Your task to perform on an android device: install app "Messenger Lite" Image 0: 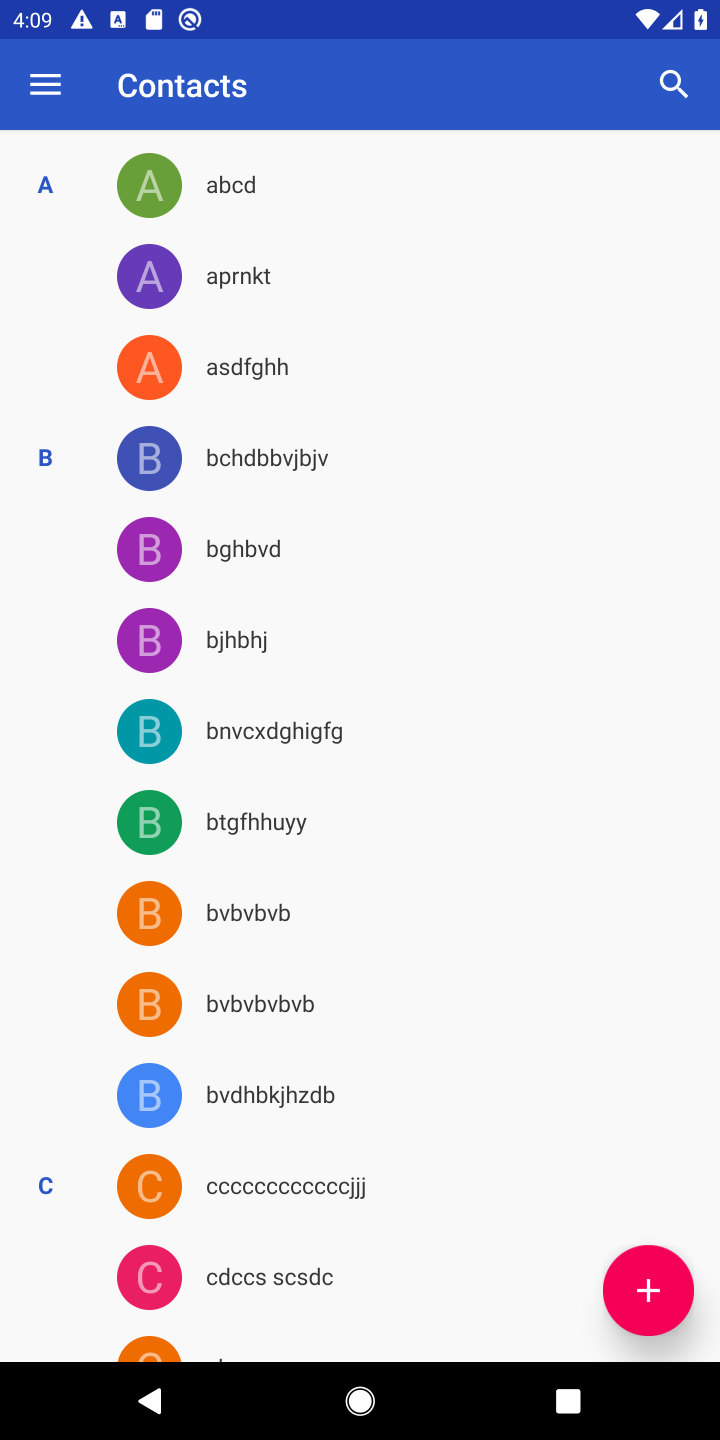
Step 0: press home button
Your task to perform on an android device: install app "Messenger Lite" Image 1: 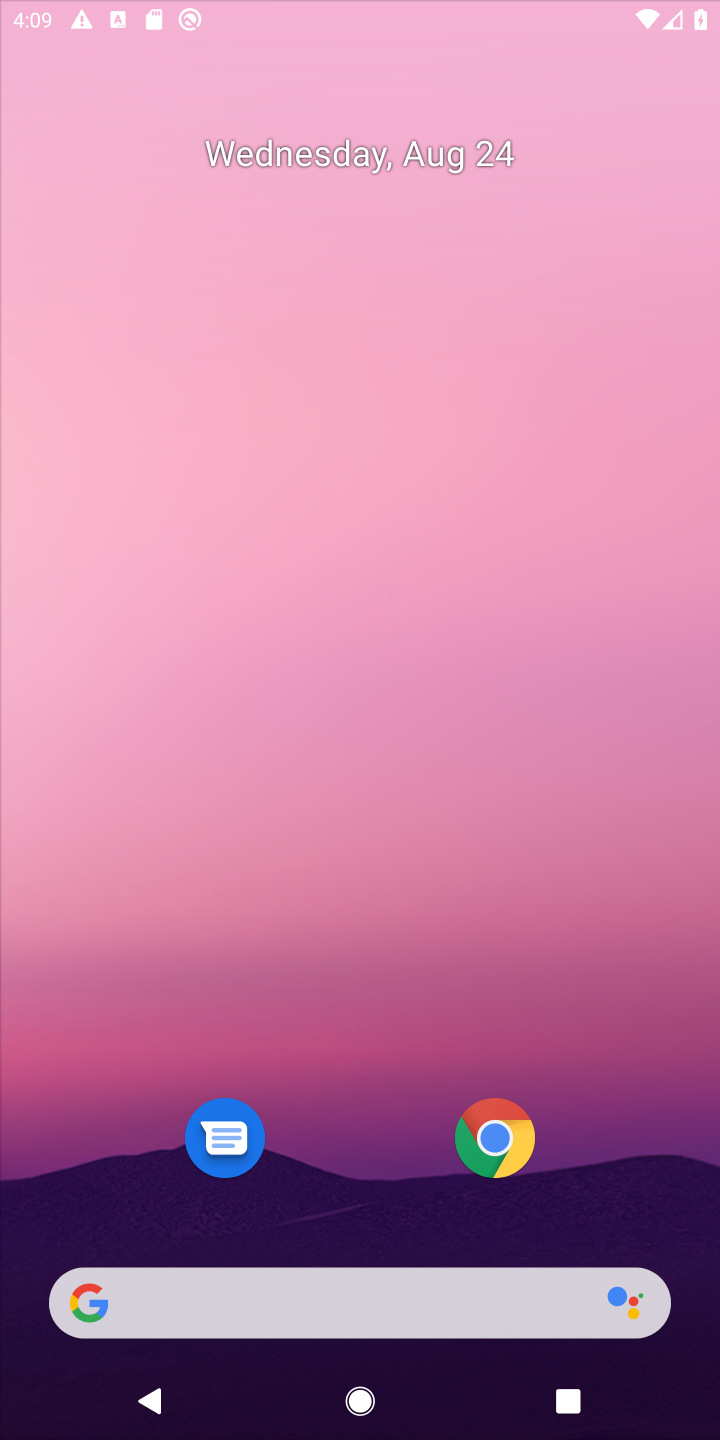
Step 1: press home button
Your task to perform on an android device: install app "Messenger Lite" Image 2: 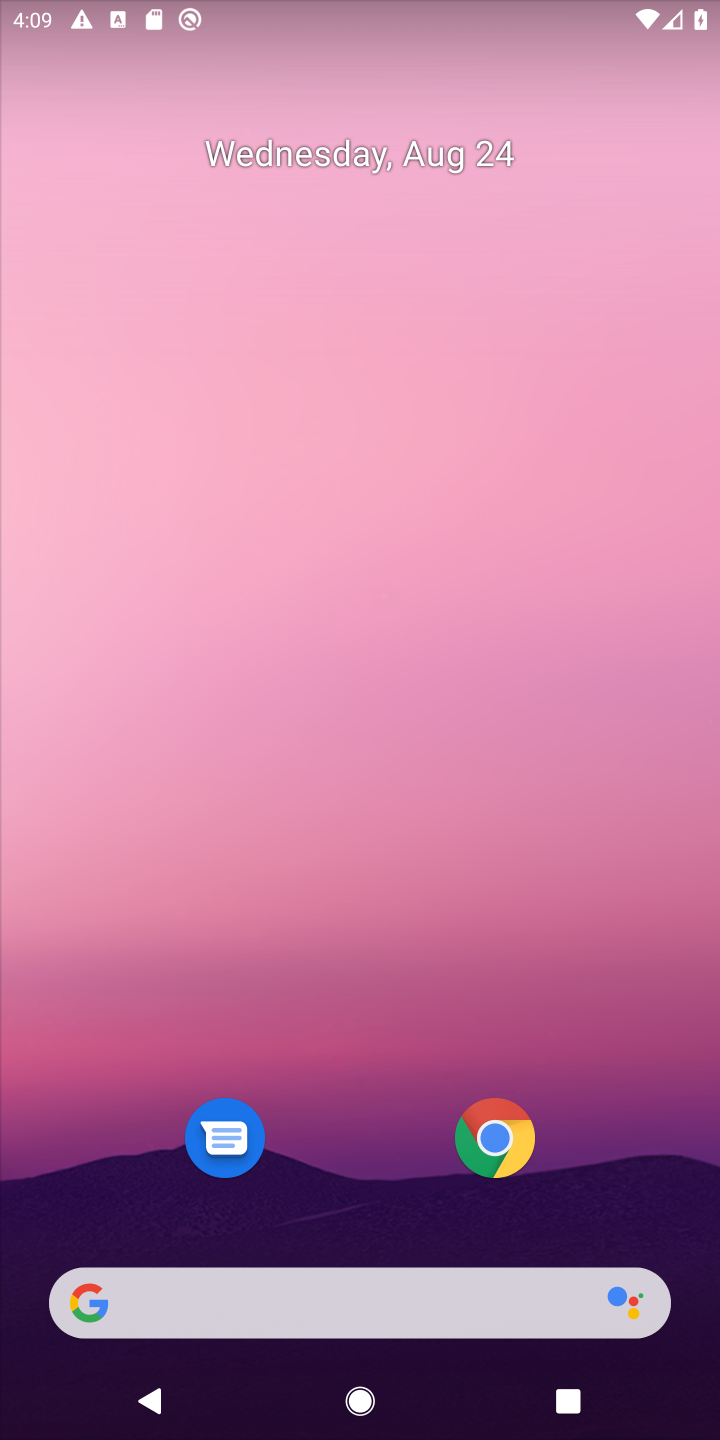
Step 2: drag from (350, 1234) to (358, 101)
Your task to perform on an android device: install app "Messenger Lite" Image 3: 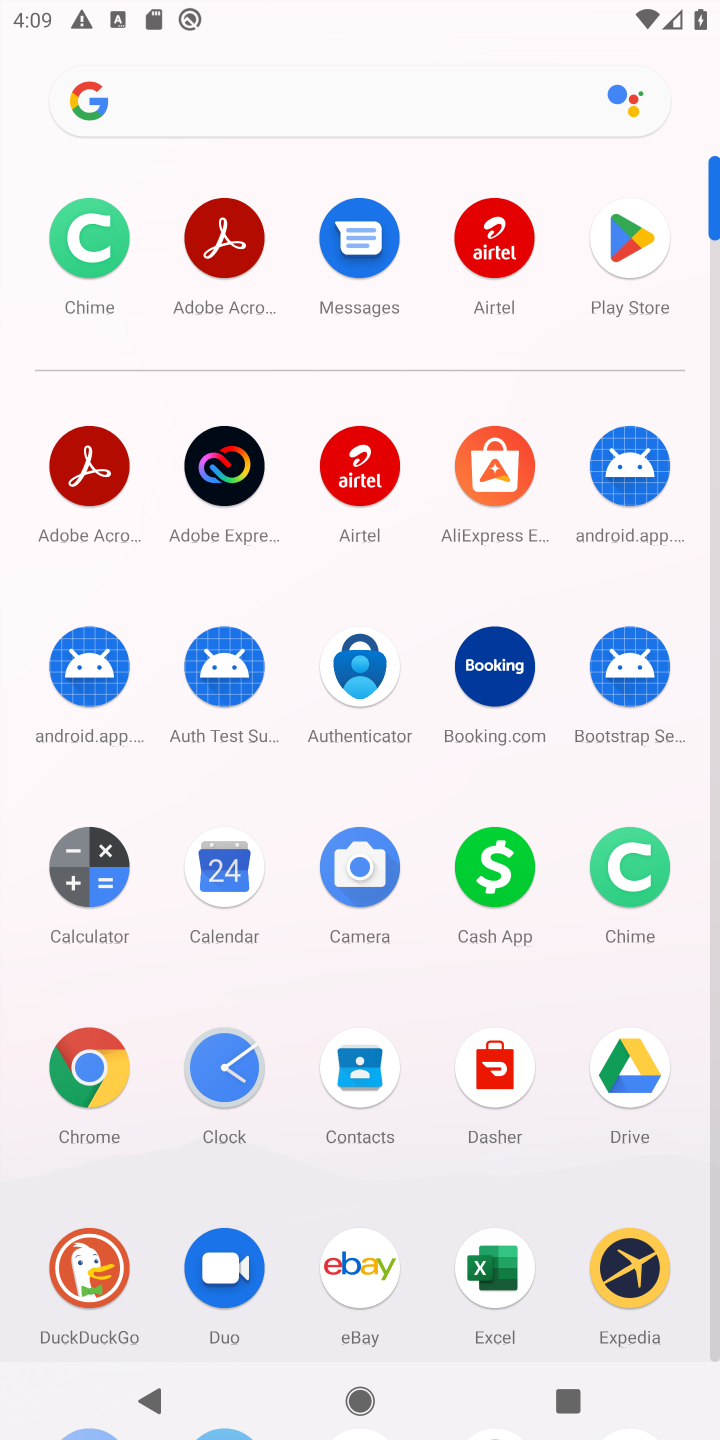
Step 3: click (654, 249)
Your task to perform on an android device: install app "Messenger Lite" Image 4: 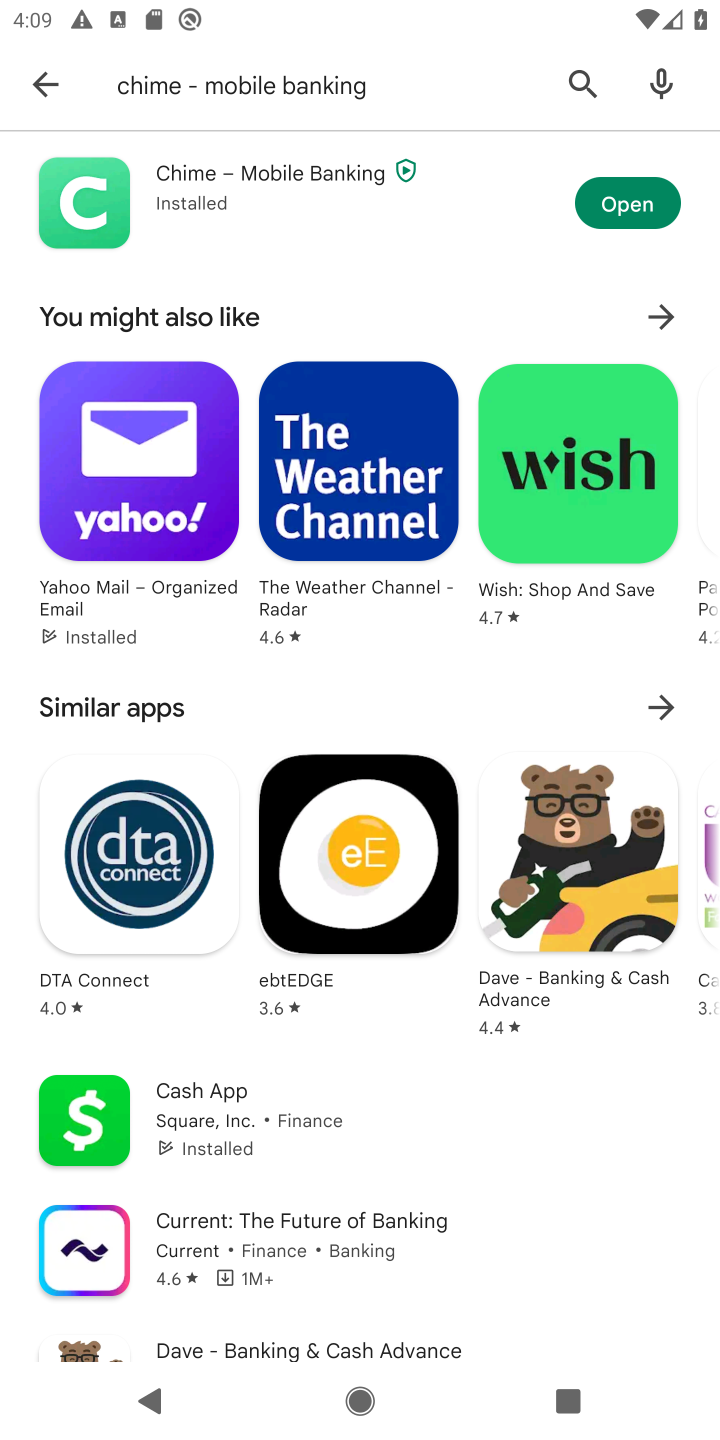
Step 4: click (582, 75)
Your task to perform on an android device: install app "Messenger Lite" Image 5: 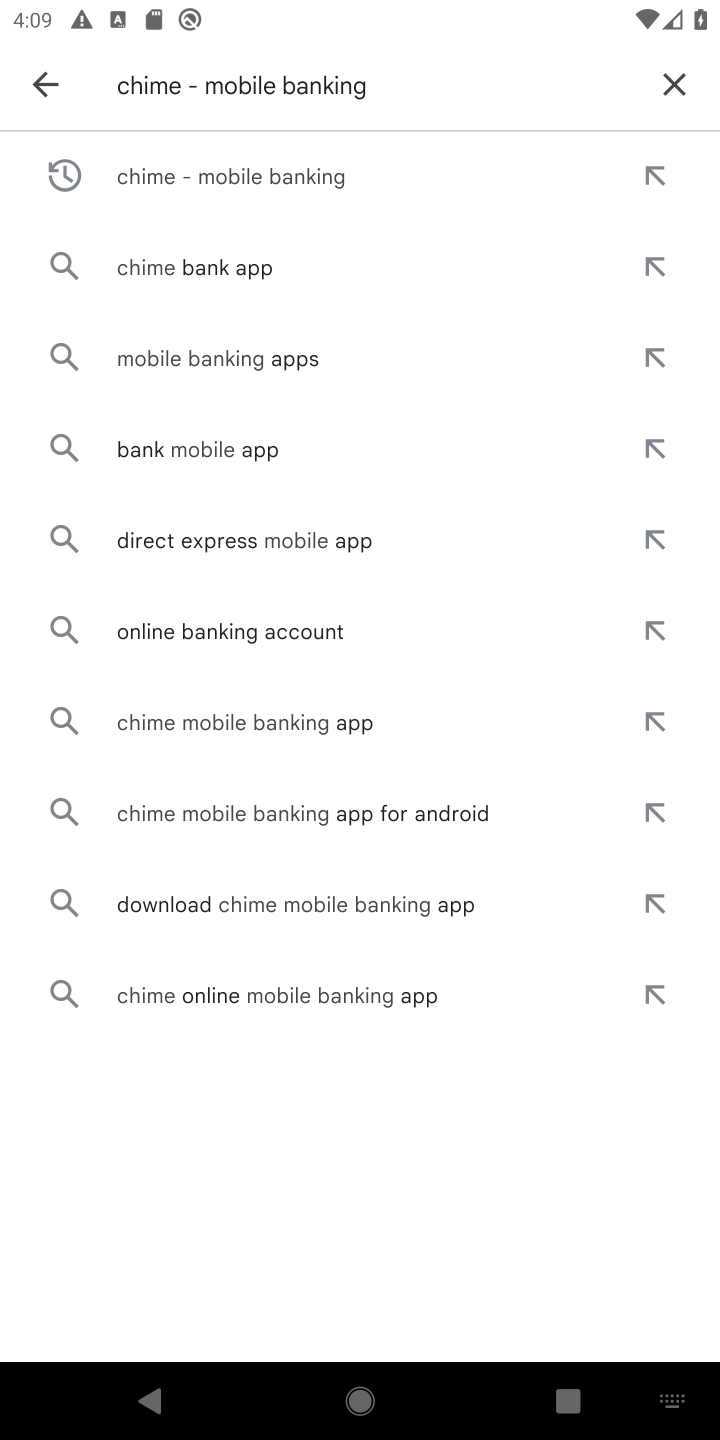
Step 5: click (661, 80)
Your task to perform on an android device: install app "Messenger Lite" Image 6: 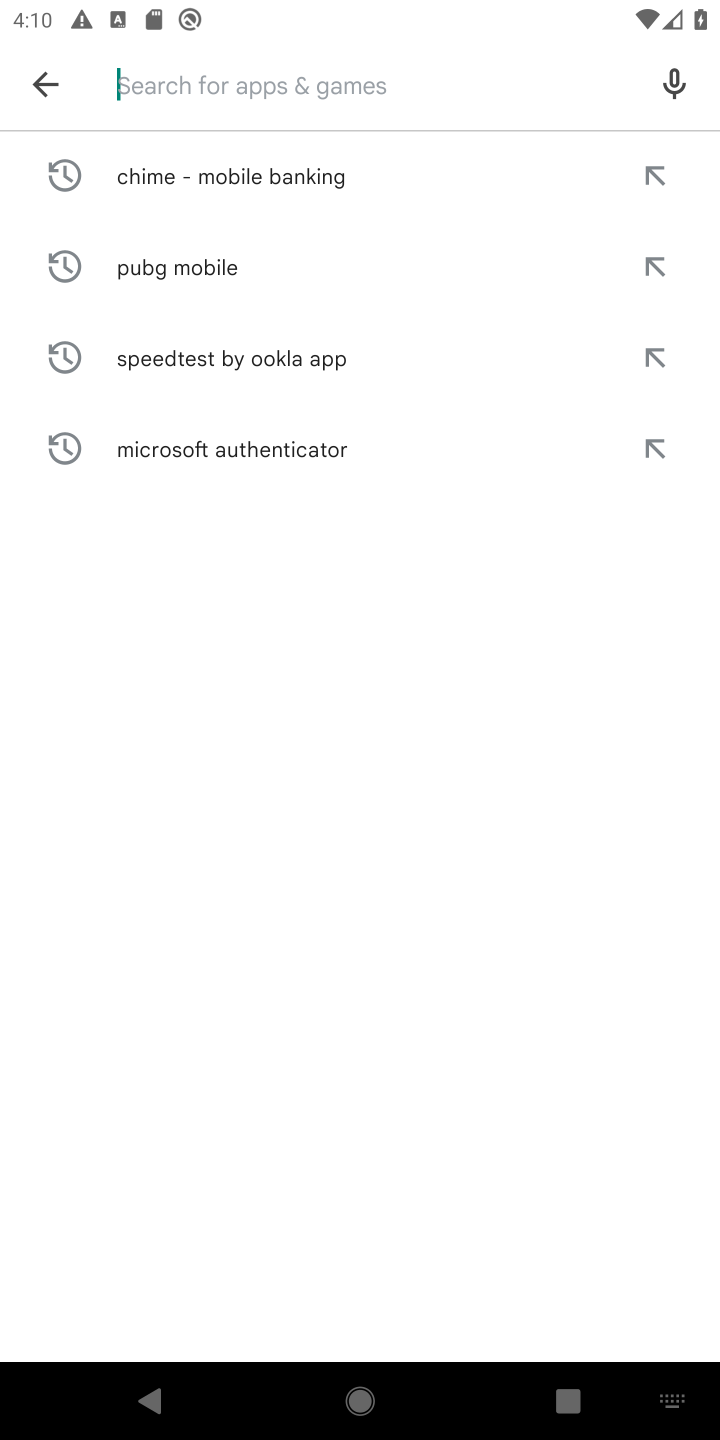
Step 6: type "Messenger Lite"
Your task to perform on an android device: install app "Messenger Lite" Image 7: 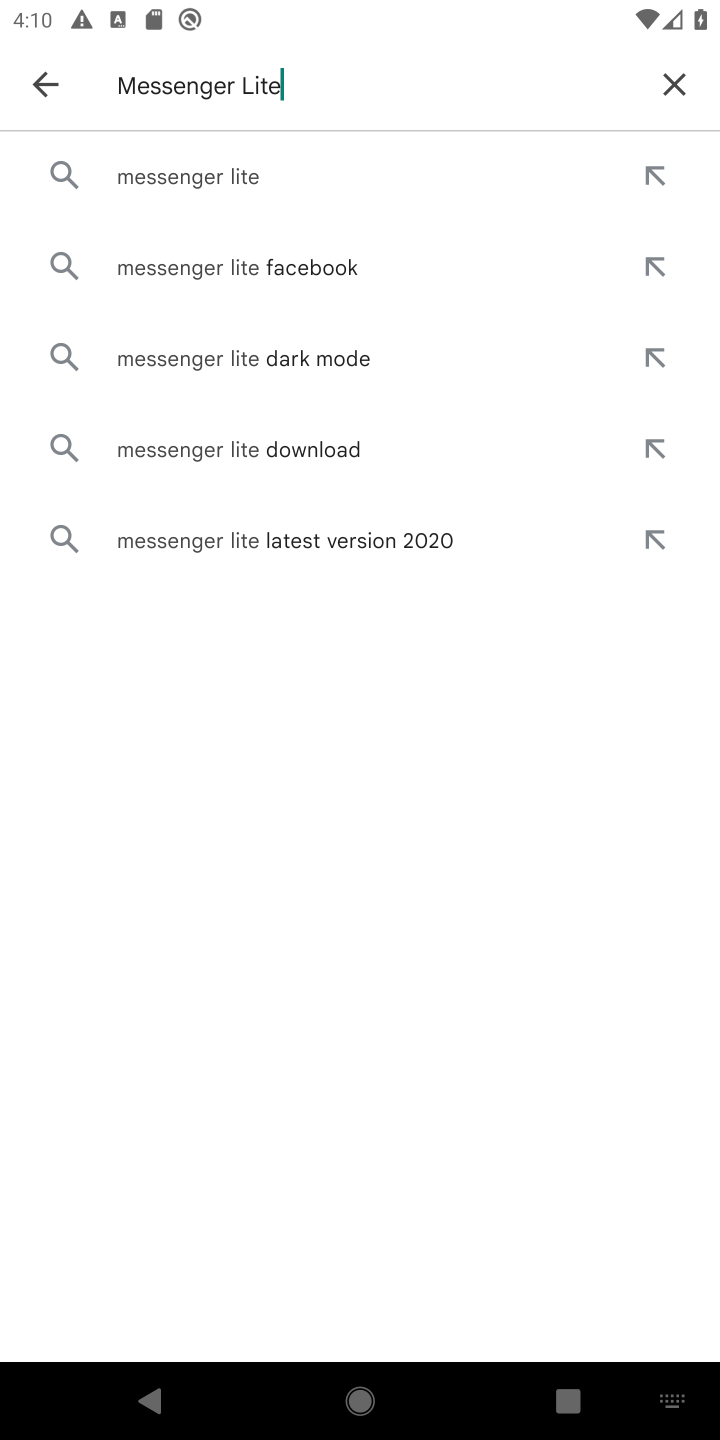
Step 7: click (238, 178)
Your task to perform on an android device: install app "Messenger Lite" Image 8: 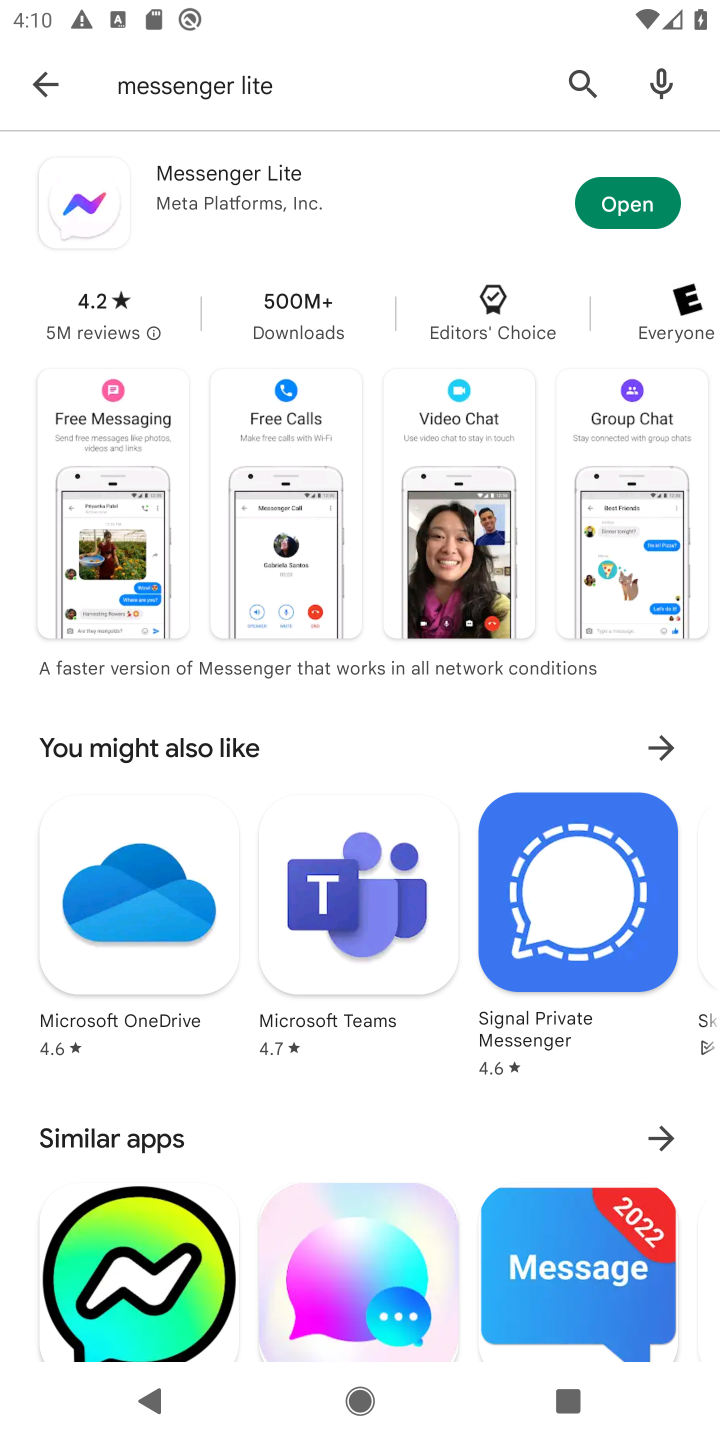
Step 8: task complete